Your task to perform on an android device: Open the map Image 0: 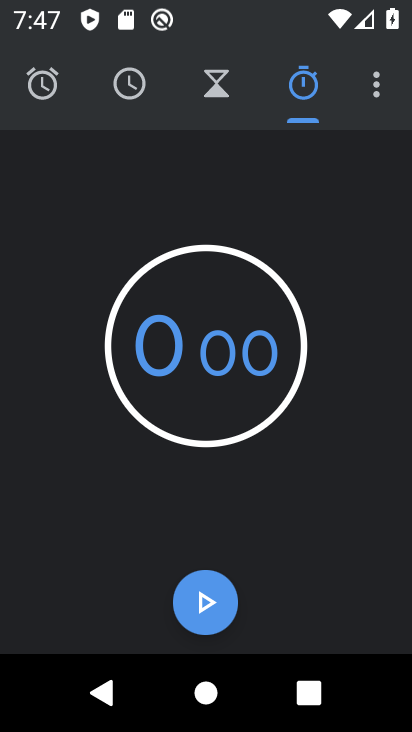
Step 0: press home button
Your task to perform on an android device: Open the map Image 1: 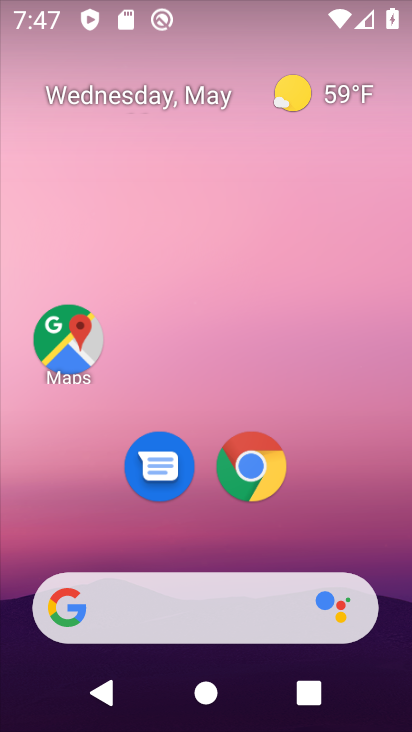
Step 1: click (53, 327)
Your task to perform on an android device: Open the map Image 2: 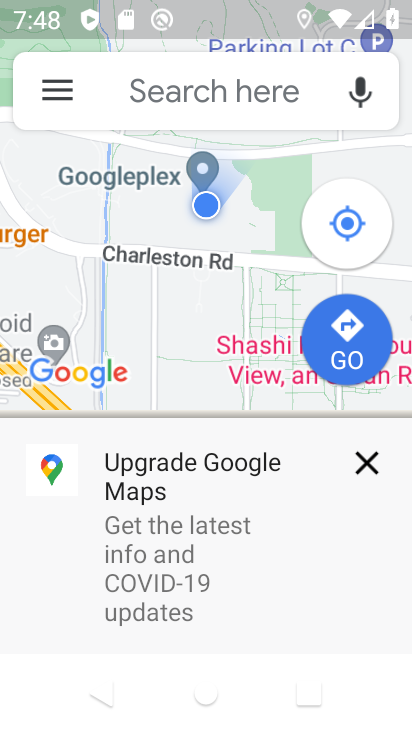
Step 2: click (375, 458)
Your task to perform on an android device: Open the map Image 3: 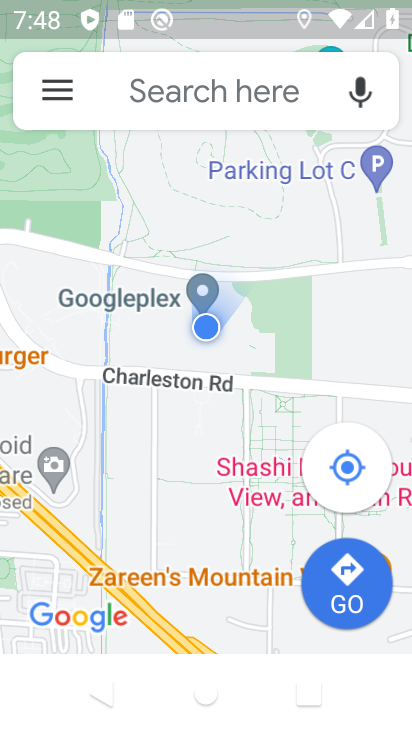
Step 3: task complete